Your task to perform on an android device: Search for seafood restaurants on Google Maps Image 0: 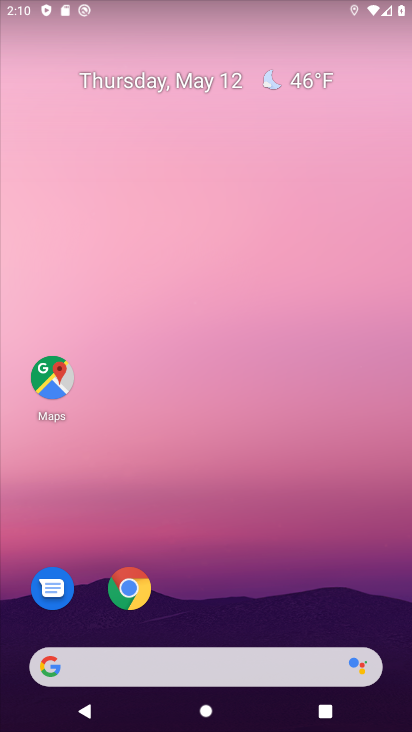
Step 0: drag from (372, 641) to (385, 109)
Your task to perform on an android device: Search for seafood restaurants on Google Maps Image 1: 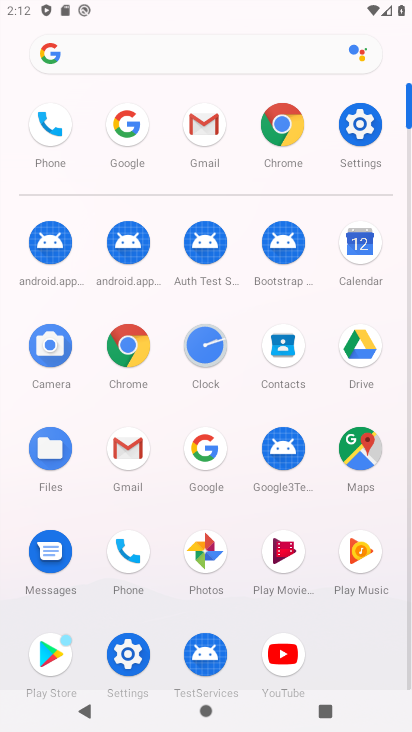
Step 1: click (368, 432)
Your task to perform on an android device: Search for seafood restaurants on Google Maps Image 2: 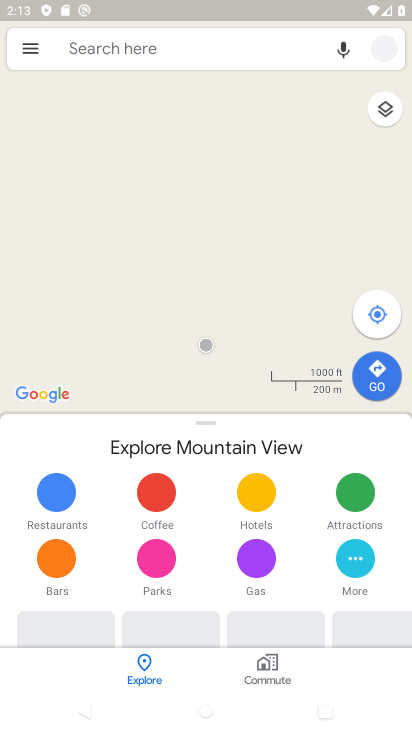
Step 2: click (155, 45)
Your task to perform on an android device: Search for seafood restaurants on Google Maps Image 3: 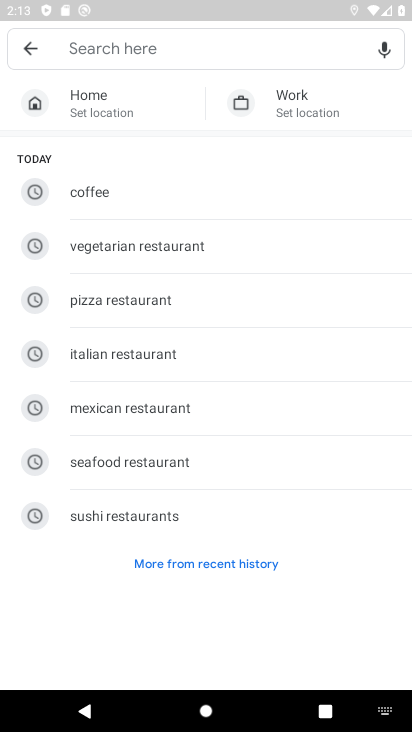
Step 3: click (148, 459)
Your task to perform on an android device: Search for seafood restaurants on Google Maps Image 4: 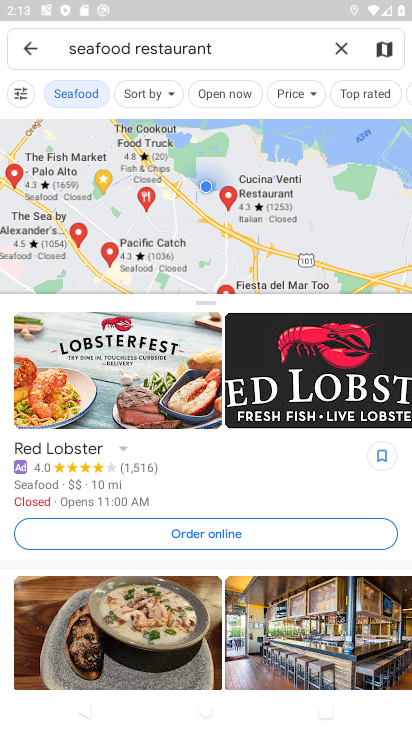
Step 4: task complete